Your task to perform on an android device: Search for Italian restaurants on Maps Image 0: 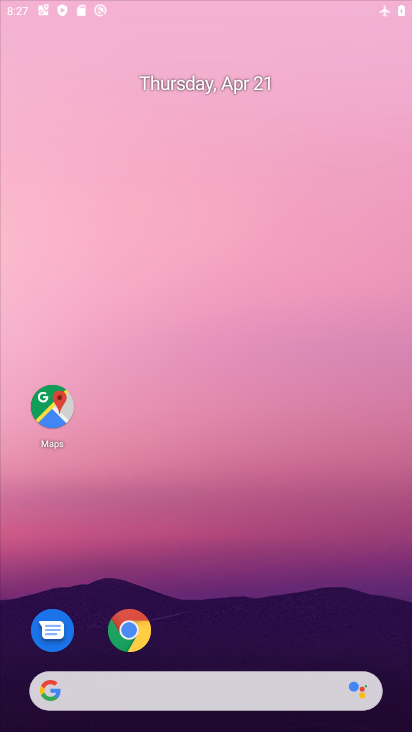
Step 0: click (46, 397)
Your task to perform on an android device: Search for Italian restaurants on Maps Image 1: 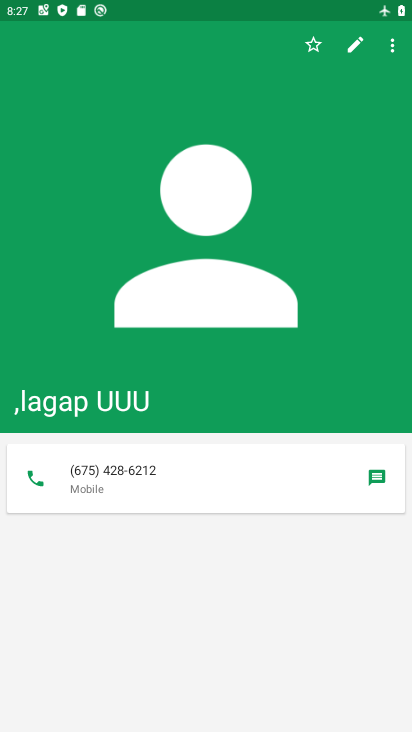
Step 1: press home button
Your task to perform on an android device: Search for Italian restaurants on Maps Image 2: 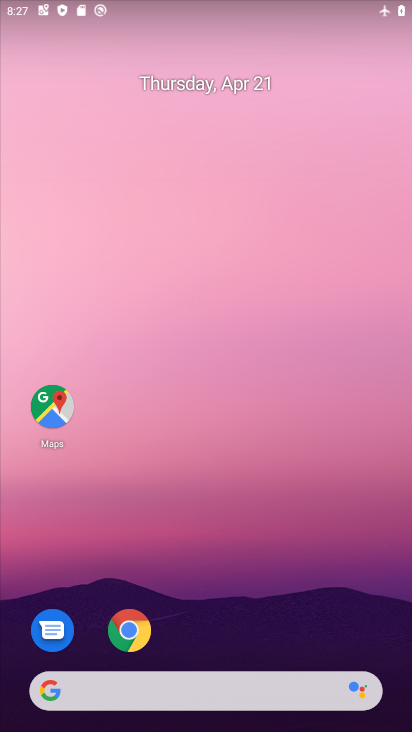
Step 2: click (53, 402)
Your task to perform on an android device: Search for Italian restaurants on Maps Image 3: 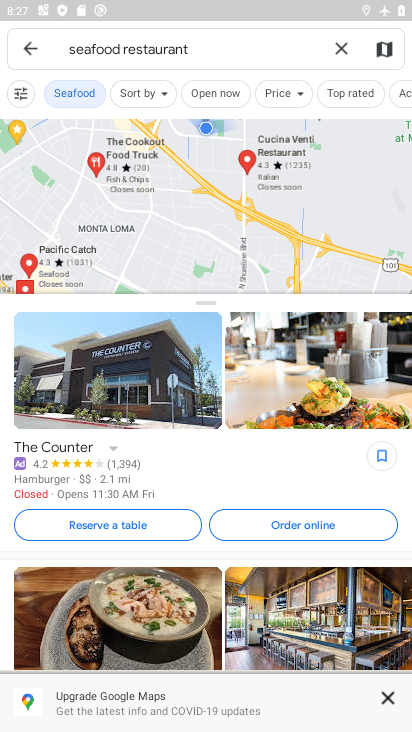
Step 3: click (101, 46)
Your task to perform on an android device: Search for Italian restaurants on Maps Image 4: 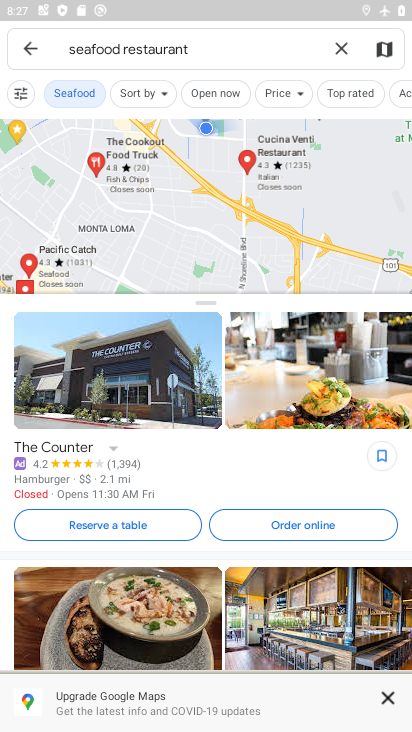
Step 4: click (101, 45)
Your task to perform on an android device: Search for Italian restaurants on Maps Image 5: 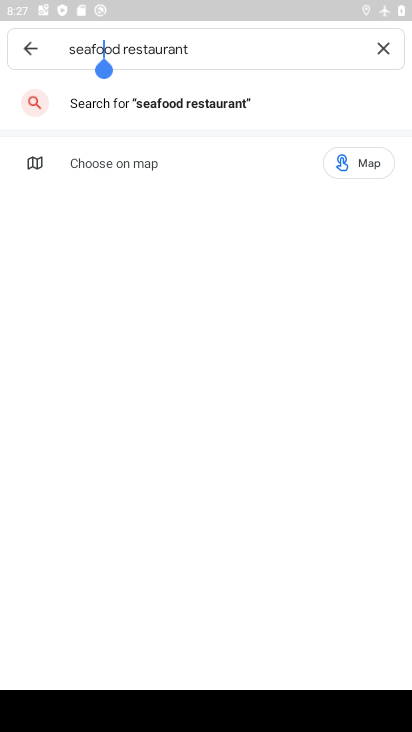
Step 5: click (93, 42)
Your task to perform on an android device: Search for Italian restaurants on Maps Image 6: 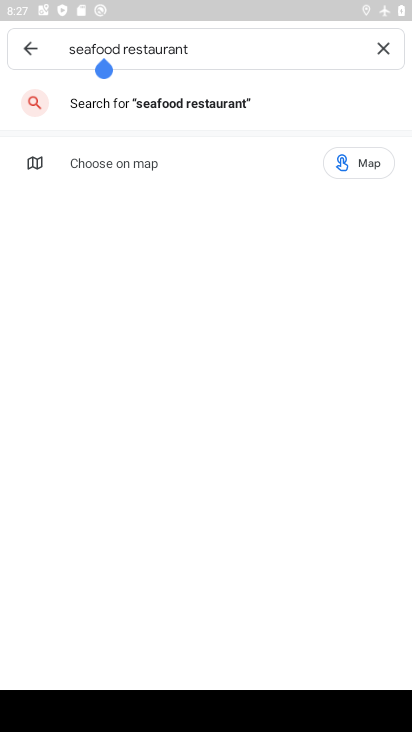
Step 6: click (91, 43)
Your task to perform on an android device: Search for Italian restaurants on Maps Image 7: 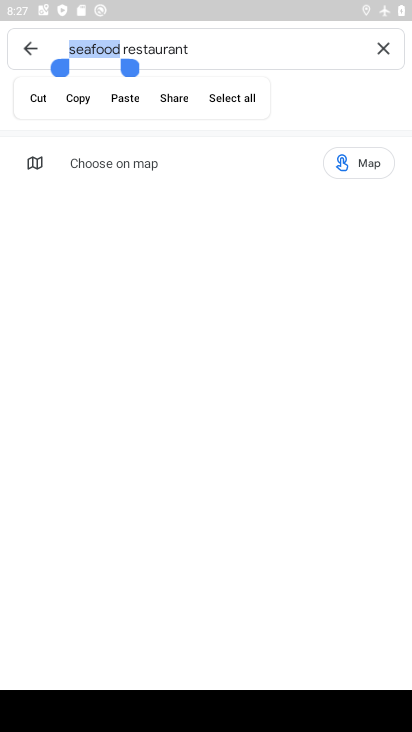
Step 7: type "italian"
Your task to perform on an android device: Search for Italian restaurants on Maps Image 8: 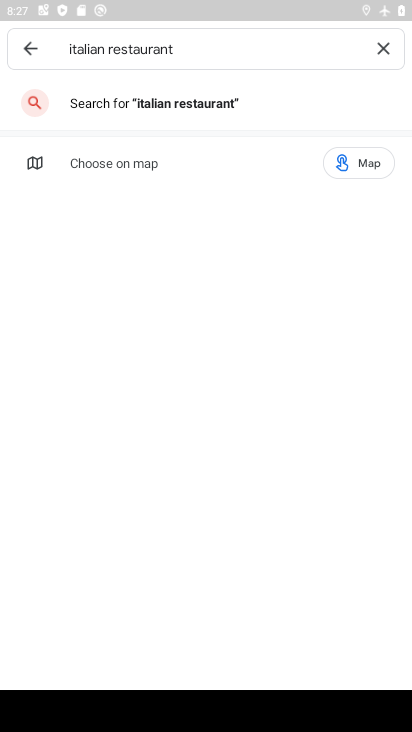
Step 8: task complete